Your task to perform on an android device: toggle javascript in the chrome app Image 0: 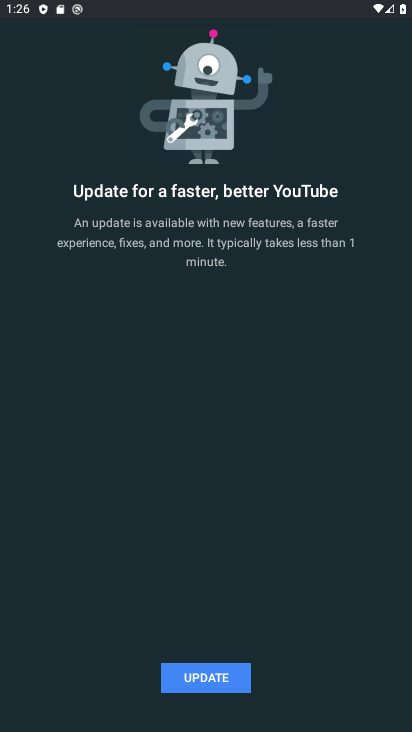
Step 0: press home button
Your task to perform on an android device: toggle javascript in the chrome app Image 1: 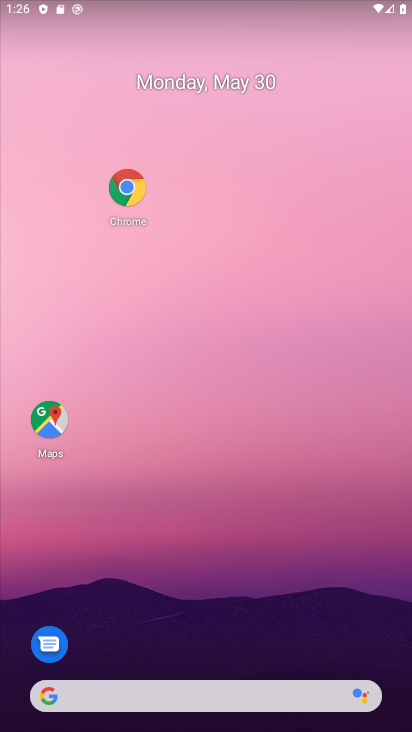
Step 1: click (132, 191)
Your task to perform on an android device: toggle javascript in the chrome app Image 2: 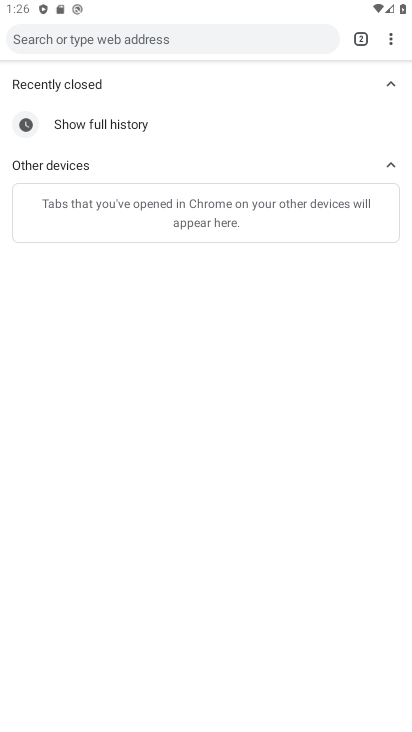
Step 2: click (393, 43)
Your task to perform on an android device: toggle javascript in the chrome app Image 3: 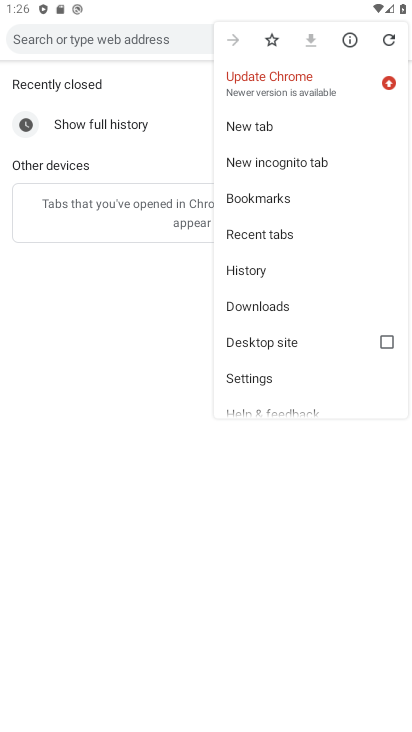
Step 3: click (255, 378)
Your task to perform on an android device: toggle javascript in the chrome app Image 4: 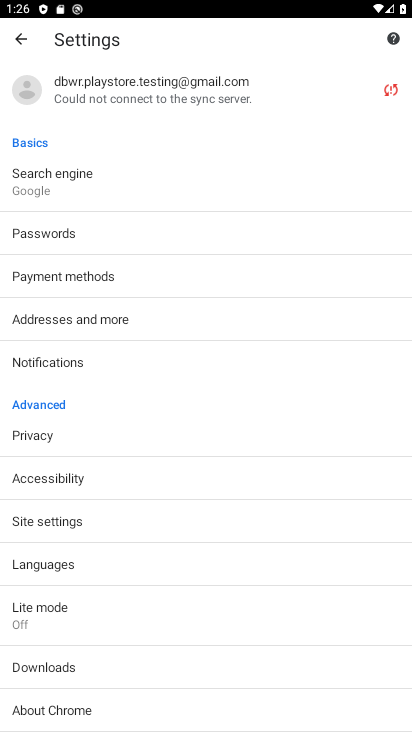
Step 4: click (92, 527)
Your task to perform on an android device: toggle javascript in the chrome app Image 5: 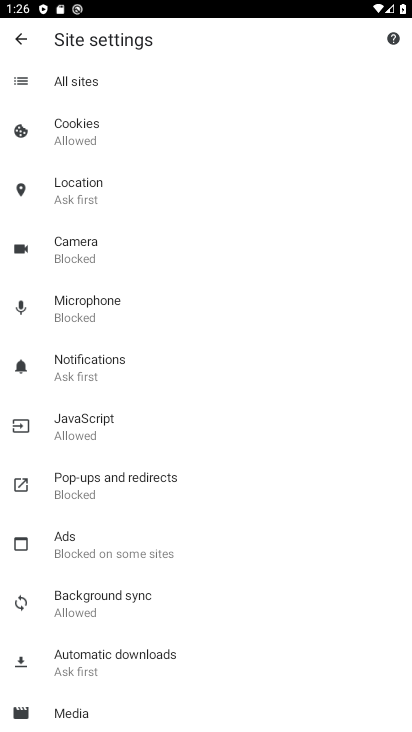
Step 5: click (124, 414)
Your task to perform on an android device: toggle javascript in the chrome app Image 6: 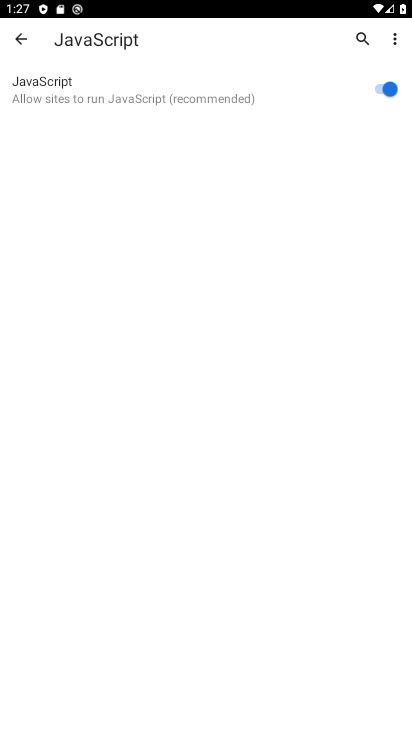
Step 6: click (124, 414)
Your task to perform on an android device: toggle javascript in the chrome app Image 7: 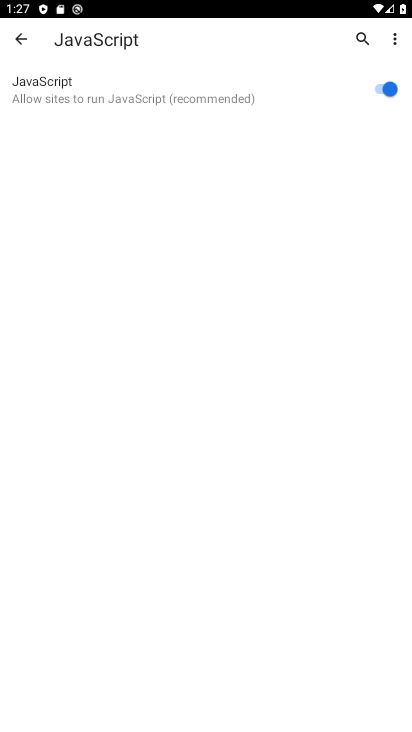
Step 7: click (387, 87)
Your task to perform on an android device: toggle javascript in the chrome app Image 8: 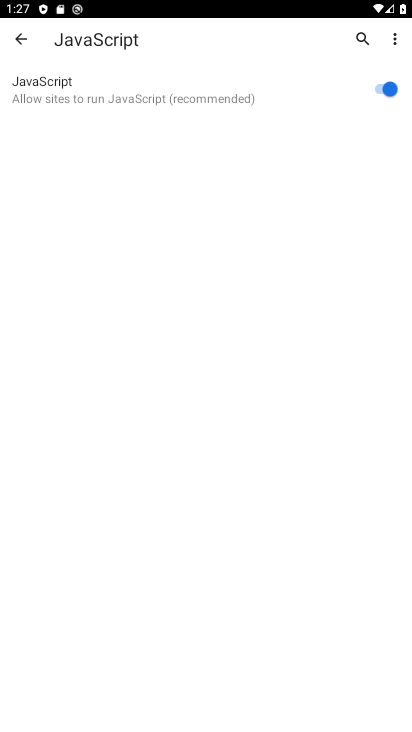
Step 8: click (387, 87)
Your task to perform on an android device: toggle javascript in the chrome app Image 9: 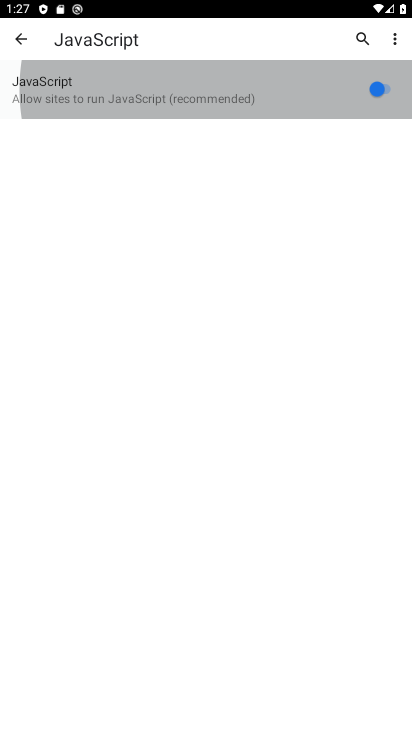
Step 9: click (387, 87)
Your task to perform on an android device: toggle javascript in the chrome app Image 10: 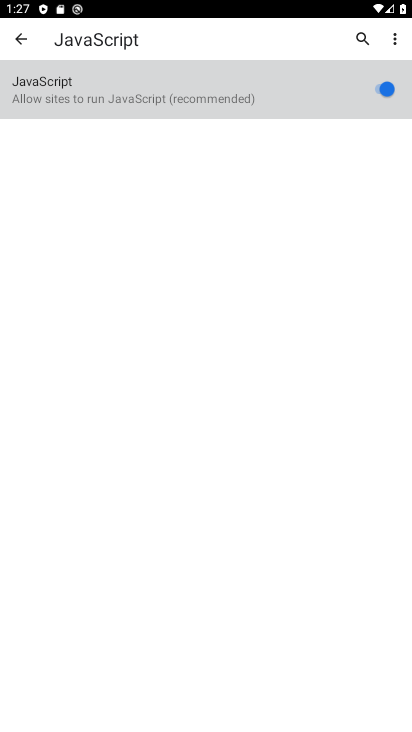
Step 10: click (387, 87)
Your task to perform on an android device: toggle javascript in the chrome app Image 11: 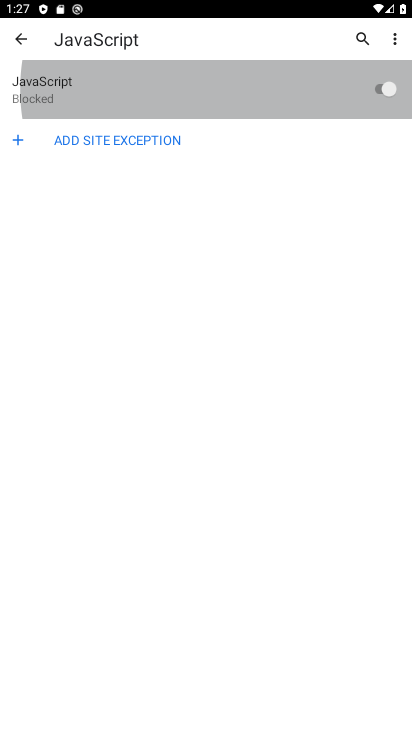
Step 11: click (387, 87)
Your task to perform on an android device: toggle javascript in the chrome app Image 12: 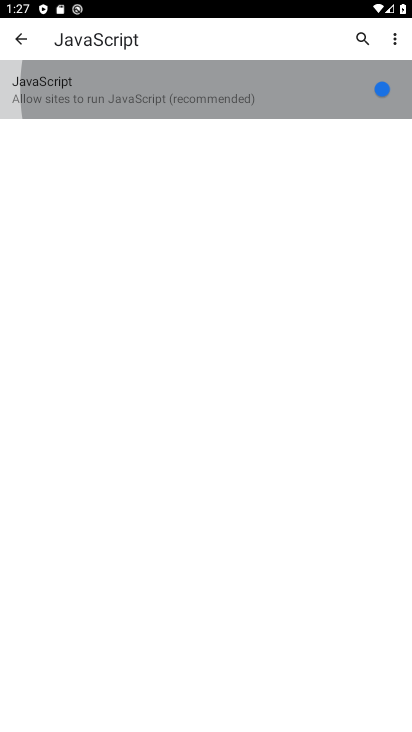
Step 12: click (387, 87)
Your task to perform on an android device: toggle javascript in the chrome app Image 13: 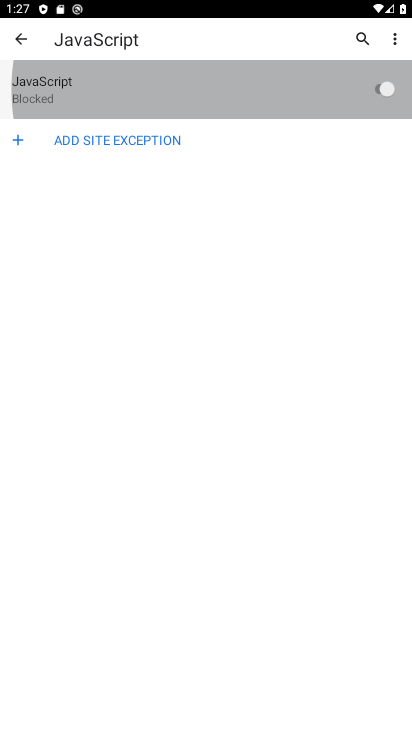
Step 13: click (387, 87)
Your task to perform on an android device: toggle javascript in the chrome app Image 14: 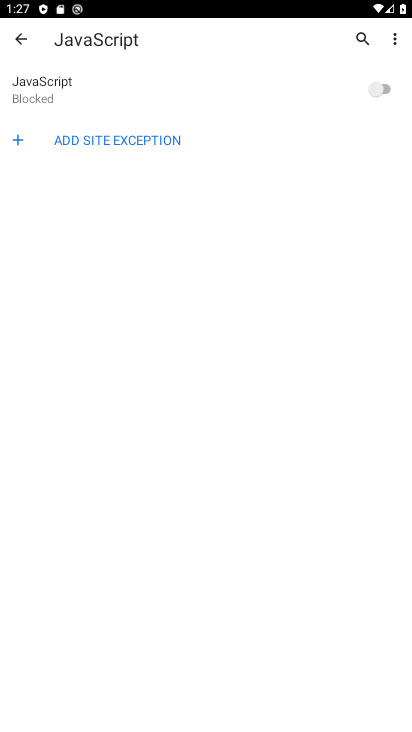
Step 14: click (387, 87)
Your task to perform on an android device: toggle javascript in the chrome app Image 15: 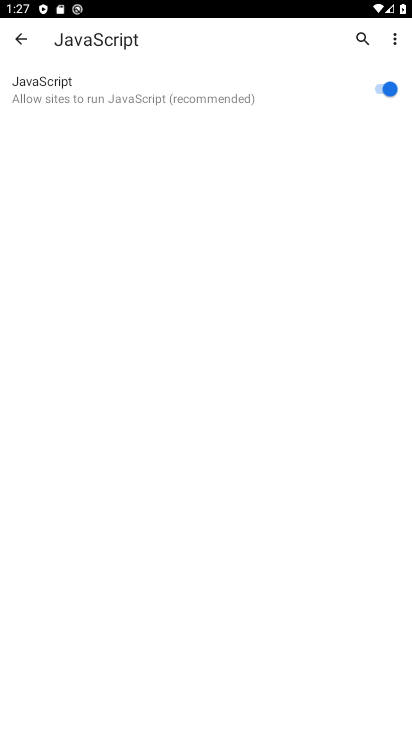
Step 15: task complete